Your task to perform on an android device: Open Amazon Image 0: 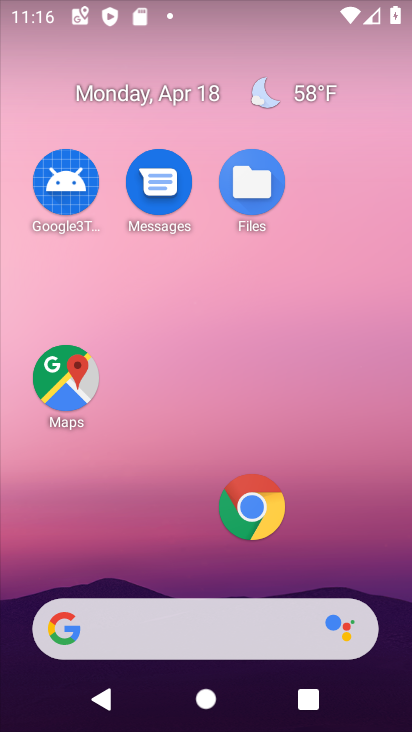
Step 0: click (249, 524)
Your task to perform on an android device: Open Amazon Image 1: 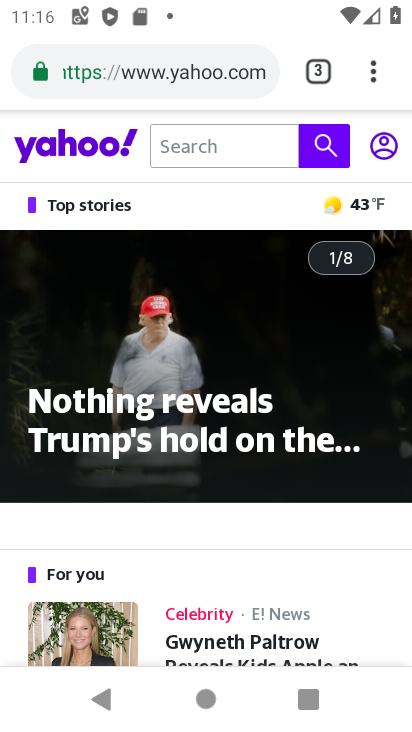
Step 1: click (319, 51)
Your task to perform on an android device: Open Amazon Image 2: 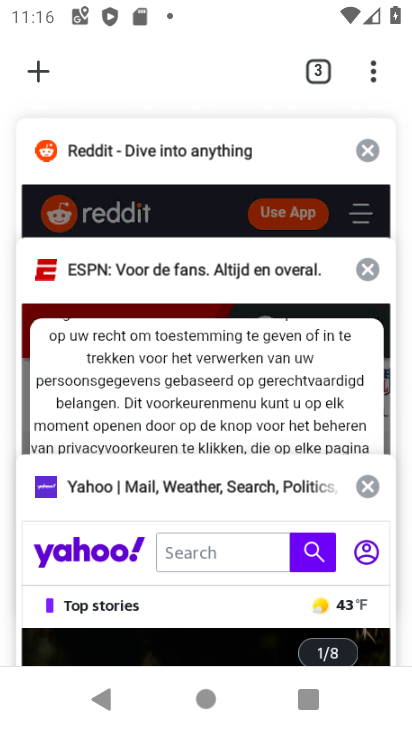
Step 2: click (23, 71)
Your task to perform on an android device: Open Amazon Image 3: 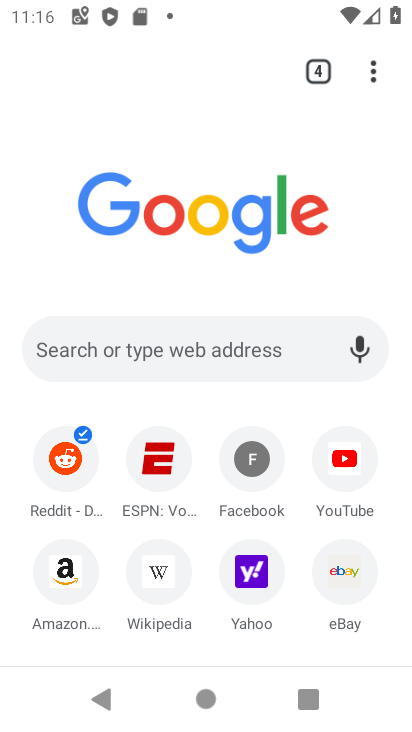
Step 3: click (68, 569)
Your task to perform on an android device: Open Amazon Image 4: 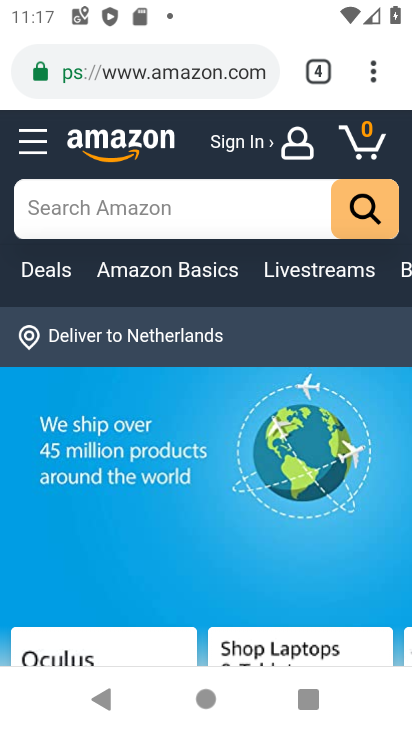
Step 4: task complete